Your task to perform on an android device: turn off smart reply in the gmail app Image 0: 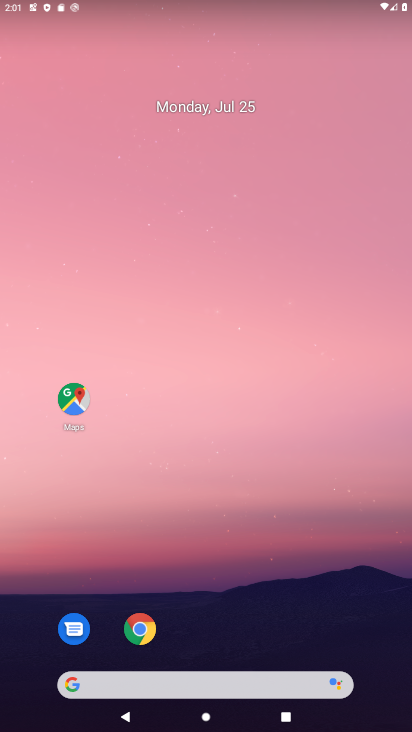
Step 0: drag from (215, 612) to (225, 15)
Your task to perform on an android device: turn off smart reply in the gmail app Image 1: 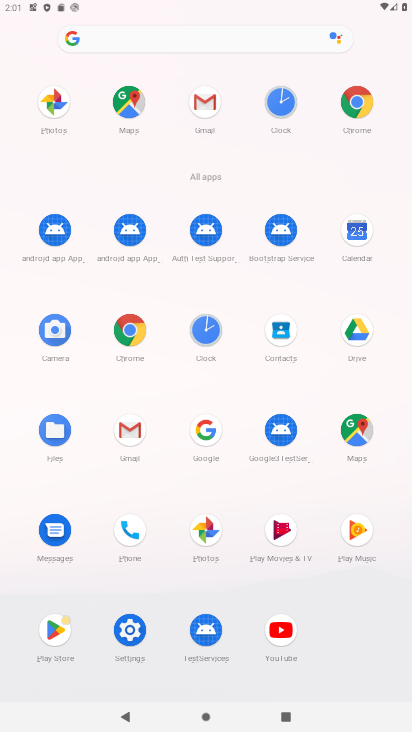
Step 1: click (134, 440)
Your task to perform on an android device: turn off smart reply in the gmail app Image 2: 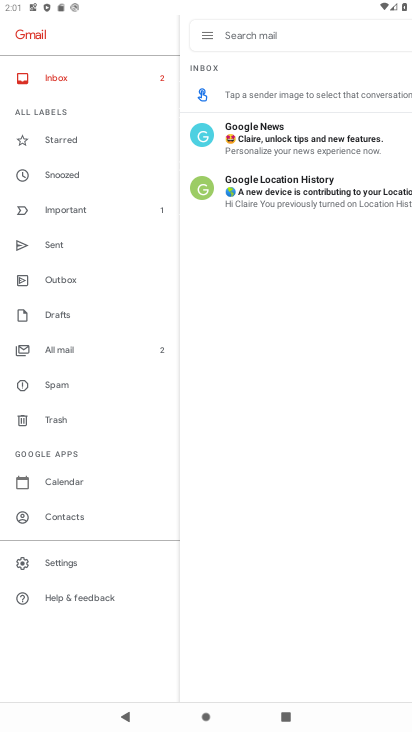
Step 2: click (72, 560)
Your task to perform on an android device: turn off smart reply in the gmail app Image 3: 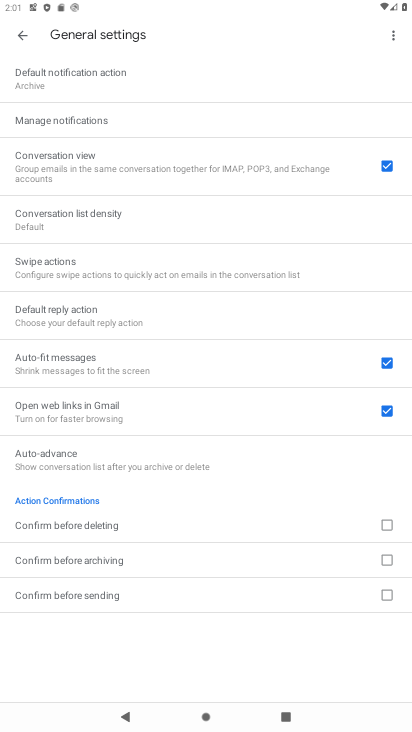
Step 3: click (22, 34)
Your task to perform on an android device: turn off smart reply in the gmail app Image 4: 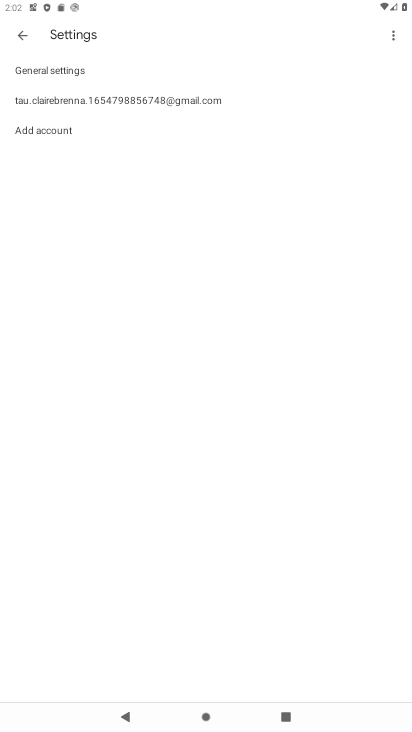
Step 4: click (123, 102)
Your task to perform on an android device: turn off smart reply in the gmail app Image 5: 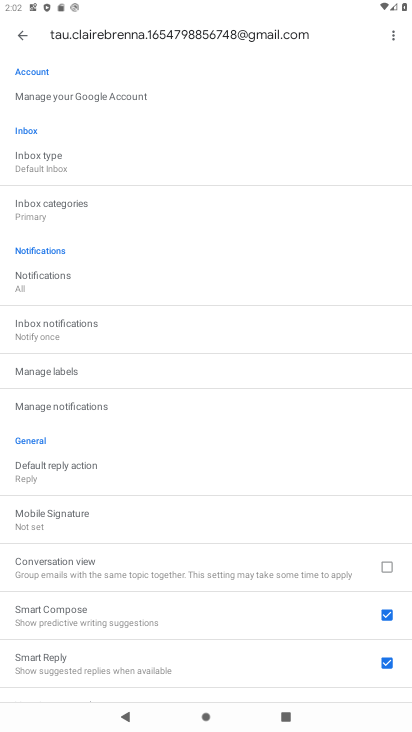
Step 5: drag from (125, 614) to (138, 495)
Your task to perform on an android device: turn off smart reply in the gmail app Image 6: 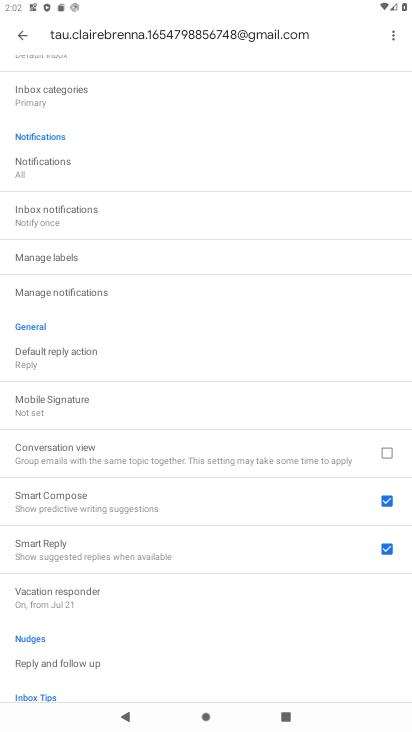
Step 6: click (370, 546)
Your task to perform on an android device: turn off smart reply in the gmail app Image 7: 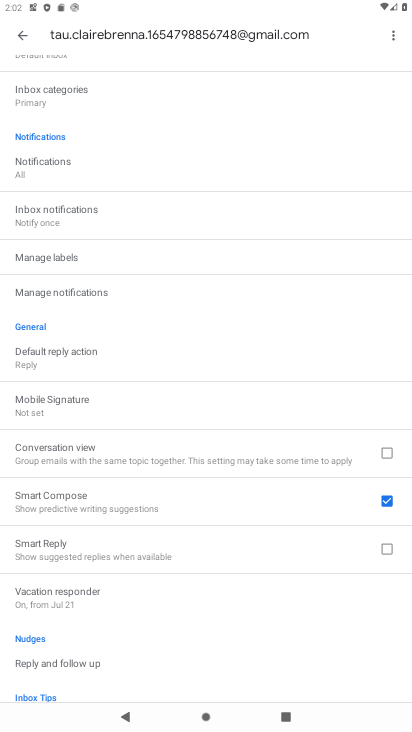
Step 7: task complete